Your task to perform on an android device: set the stopwatch Image 0: 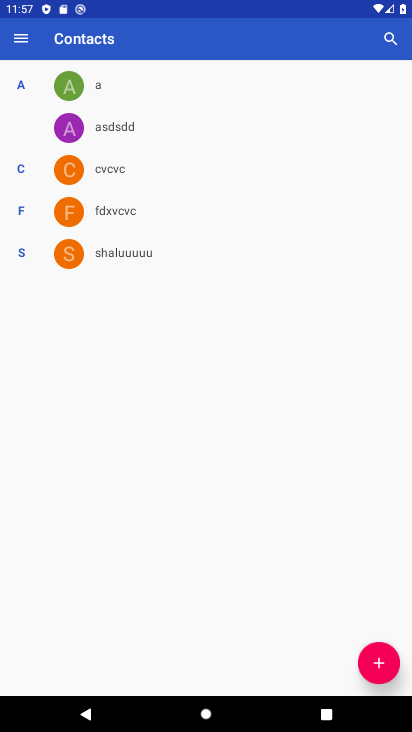
Step 0: press home button
Your task to perform on an android device: set the stopwatch Image 1: 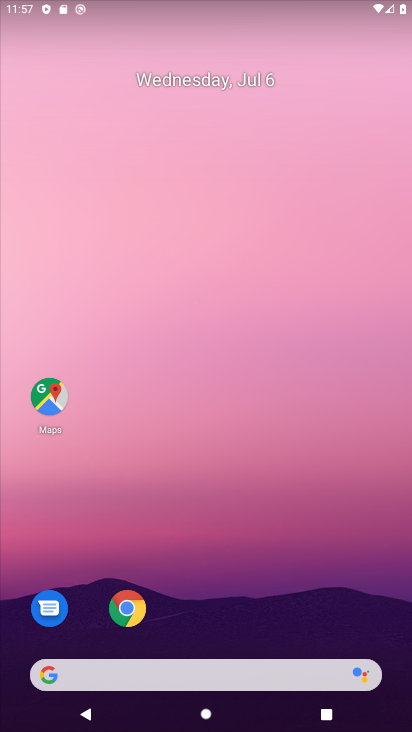
Step 1: drag from (261, 632) to (263, 48)
Your task to perform on an android device: set the stopwatch Image 2: 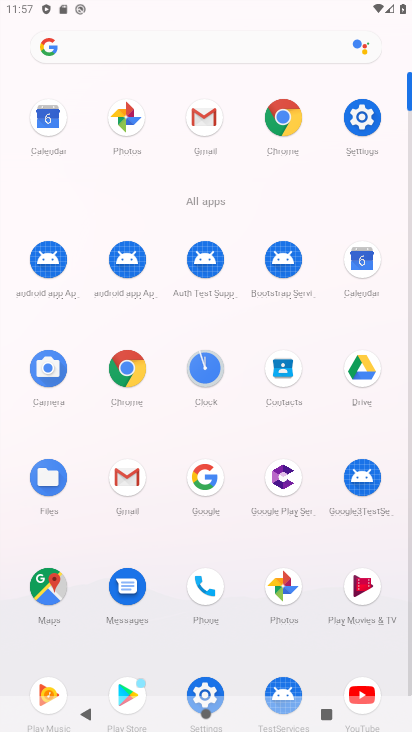
Step 2: click (199, 373)
Your task to perform on an android device: set the stopwatch Image 3: 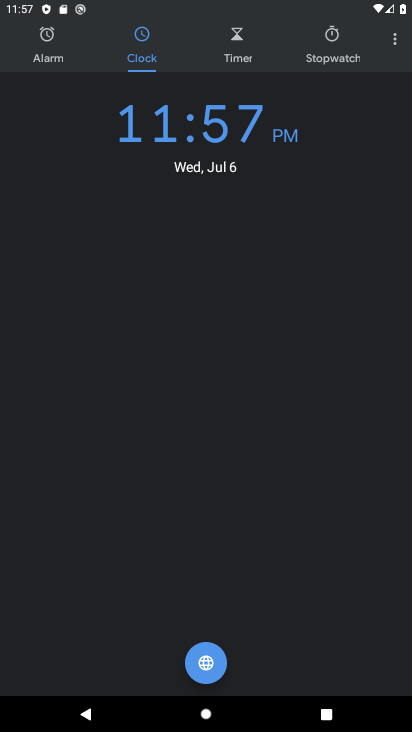
Step 3: click (339, 41)
Your task to perform on an android device: set the stopwatch Image 4: 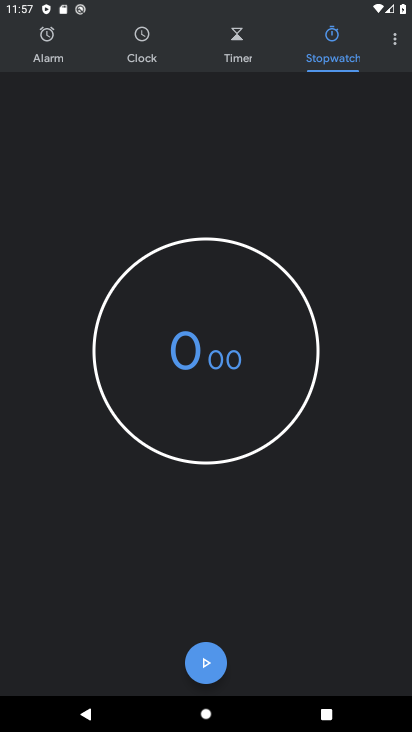
Step 4: click (210, 656)
Your task to perform on an android device: set the stopwatch Image 5: 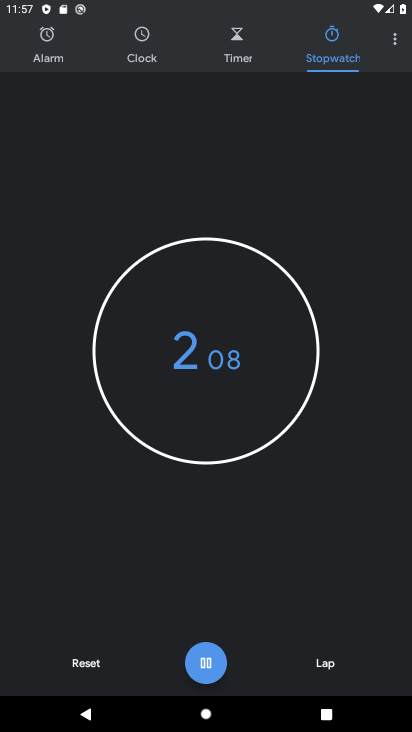
Step 5: task complete